Your task to perform on an android device: toggle priority inbox in the gmail app Image 0: 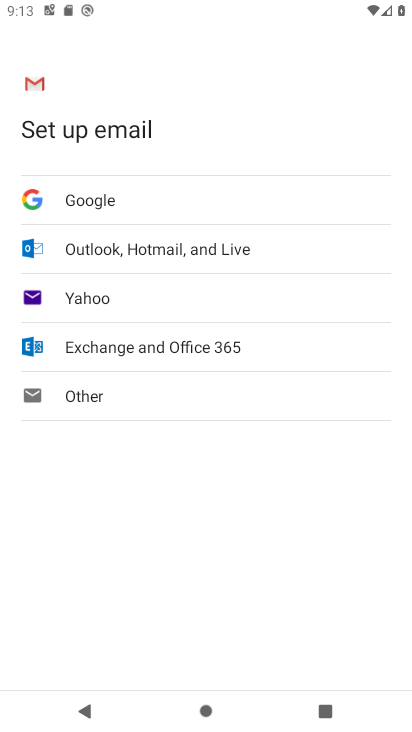
Step 0: press home button
Your task to perform on an android device: toggle priority inbox in the gmail app Image 1: 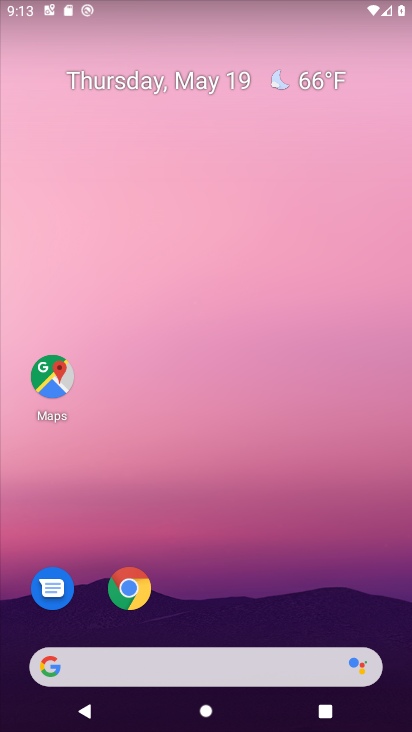
Step 1: drag from (379, 596) to (381, 104)
Your task to perform on an android device: toggle priority inbox in the gmail app Image 2: 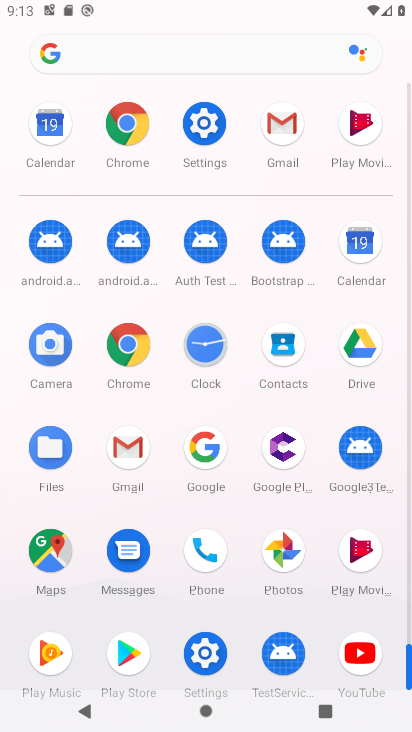
Step 2: click (125, 451)
Your task to perform on an android device: toggle priority inbox in the gmail app Image 3: 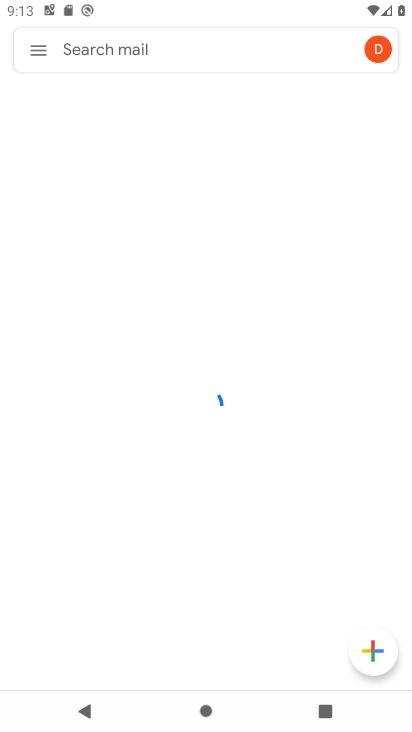
Step 3: click (47, 50)
Your task to perform on an android device: toggle priority inbox in the gmail app Image 4: 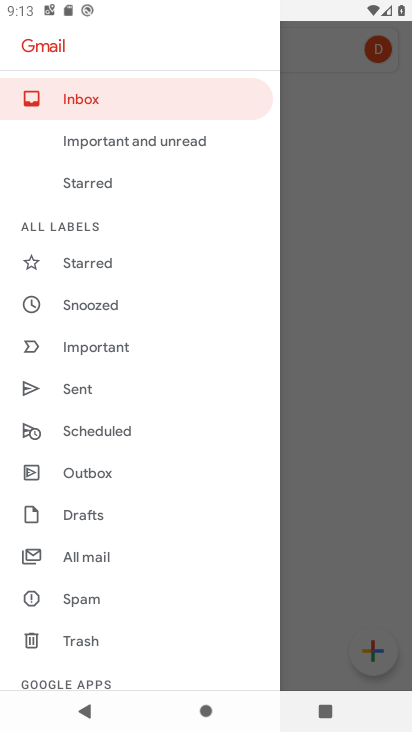
Step 4: drag from (206, 492) to (216, 320)
Your task to perform on an android device: toggle priority inbox in the gmail app Image 5: 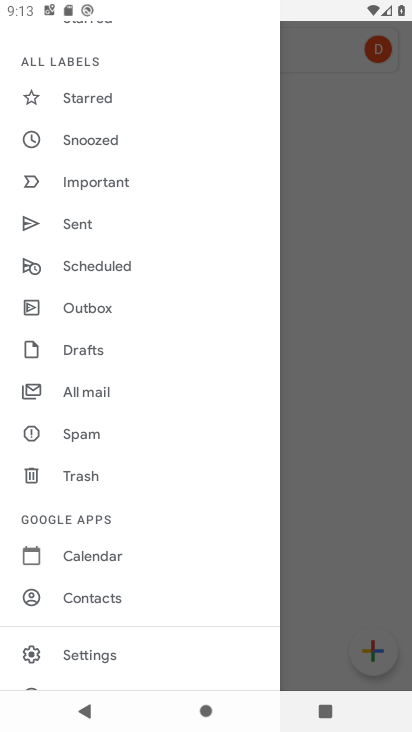
Step 5: drag from (191, 550) to (199, 349)
Your task to perform on an android device: toggle priority inbox in the gmail app Image 6: 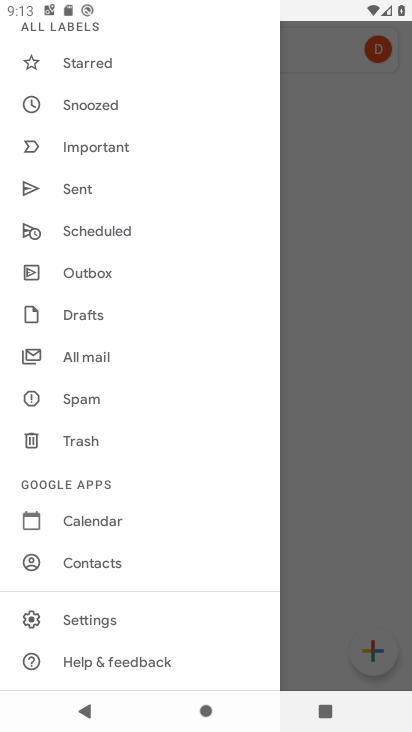
Step 6: drag from (202, 573) to (198, 417)
Your task to perform on an android device: toggle priority inbox in the gmail app Image 7: 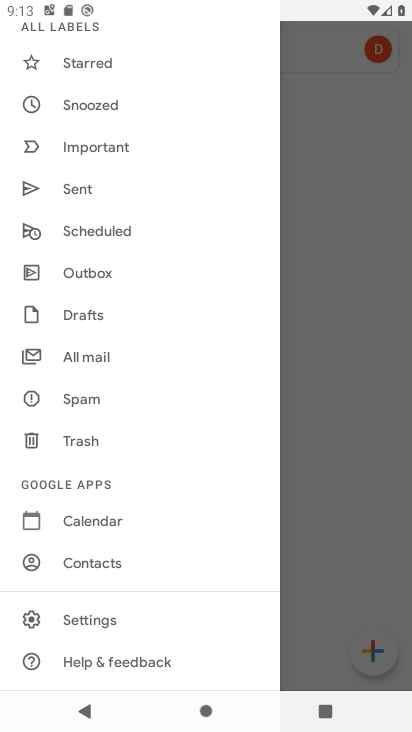
Step 7: click (146, 621)
Your task to perform on an android device: toggle priority inbox in the gmail app Image 8: 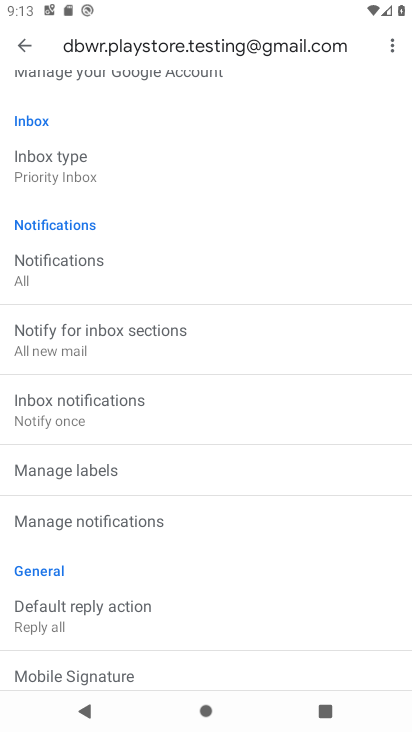
Step 8: task complete